Your task to perform on an android device: clear all cookies in the chrome app Image 0: 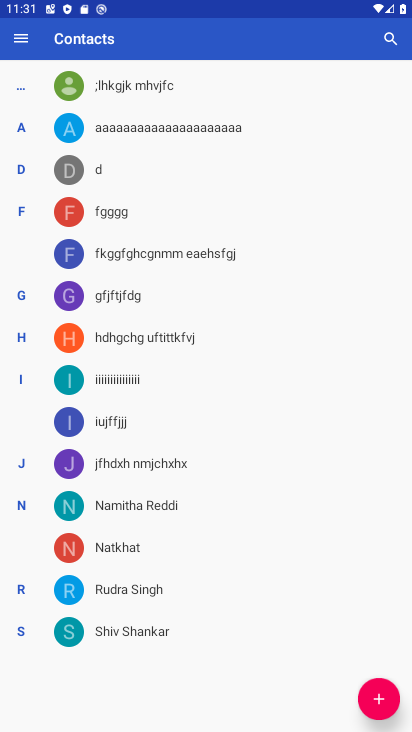
Step 0: press home button
Your task to perform on an android device: clear all cookies in the chrome app Image 1: 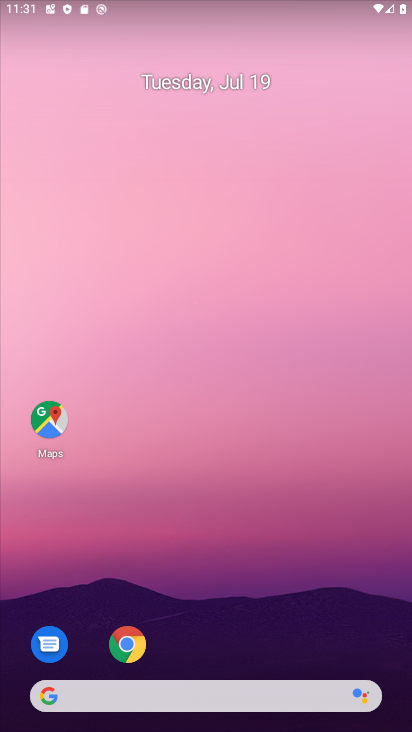
Step 1: drag from (326, 643) to (253, 32)
Your task to perform on an android device: clear all cookies in the chrome app Image 2: 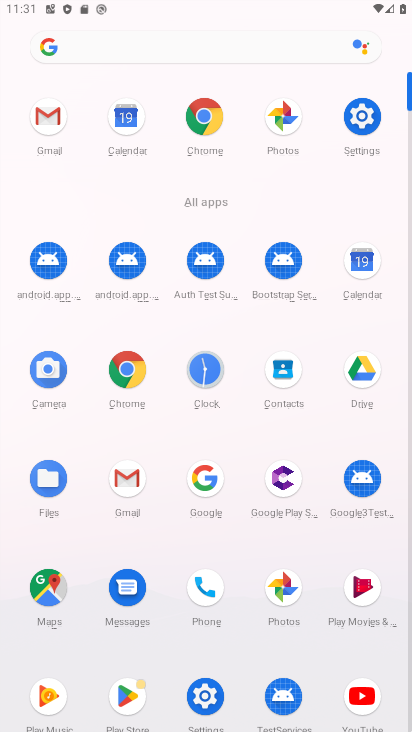
Step 2: click (128, 395)
Your task to perform on an android device: clear all cookies in the chrome app Image 3: 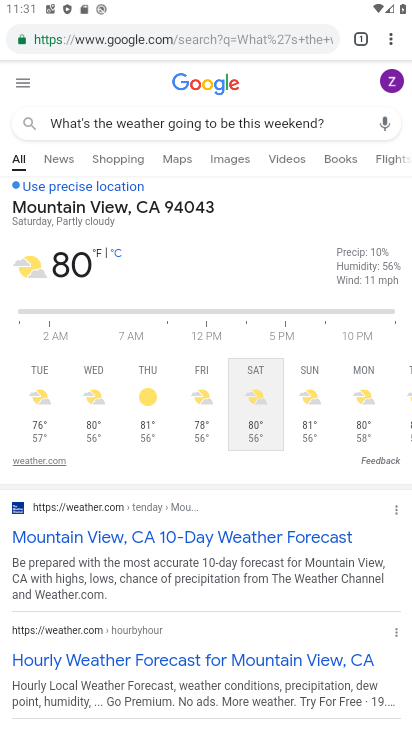
Step 3: drag from (400, 44) to (261, 425)
Your task to perform on an android device: clear all cookies in the chrome app Image 4: 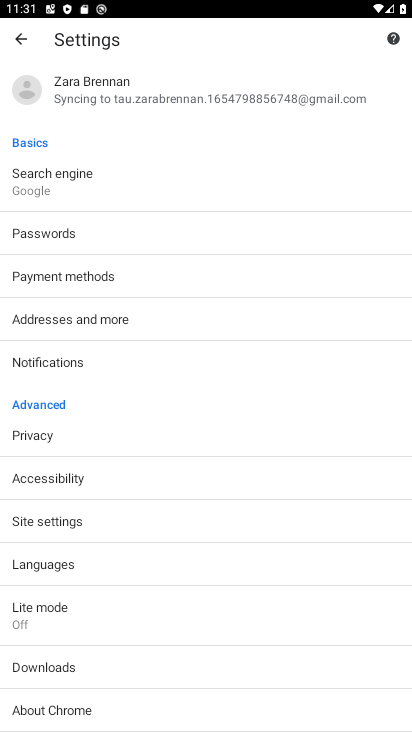
Step 4: click (35, 445)
Your task to perform on an android device: clear all cookies in the chrome app Image 5: 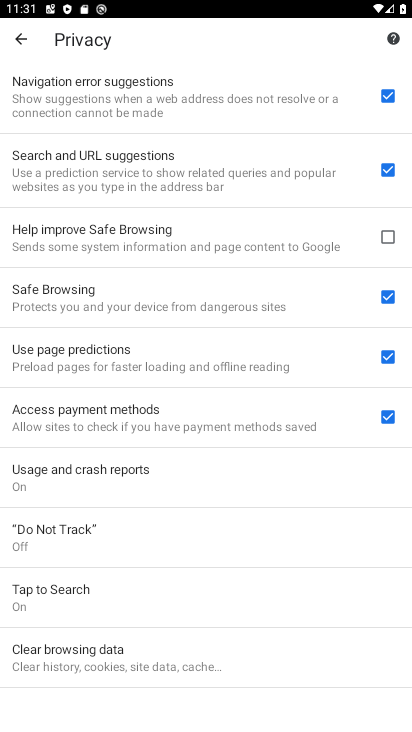
Step 5: click (26, 637)
Your task to perform on an android device: clear all cookies in the chrome app Image 6: 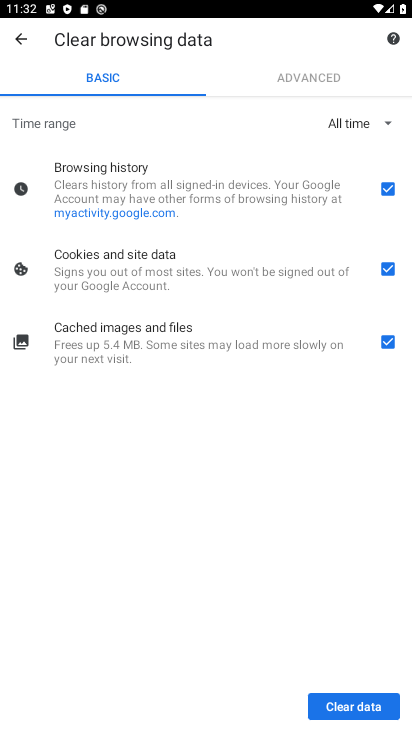
Step 6: click (329, 703)
Your task to perform on an android device: clear all cookies in the chrome app Image 7: 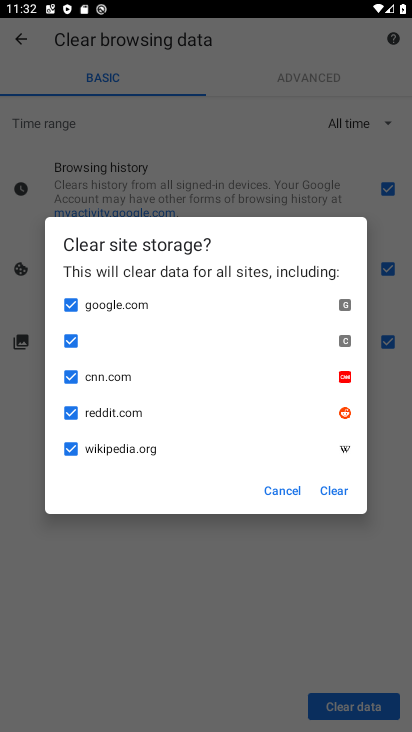
Step 7: click (356, 497)
Your task to perform on an android device: clear all cookies in the chrome app Image 8: 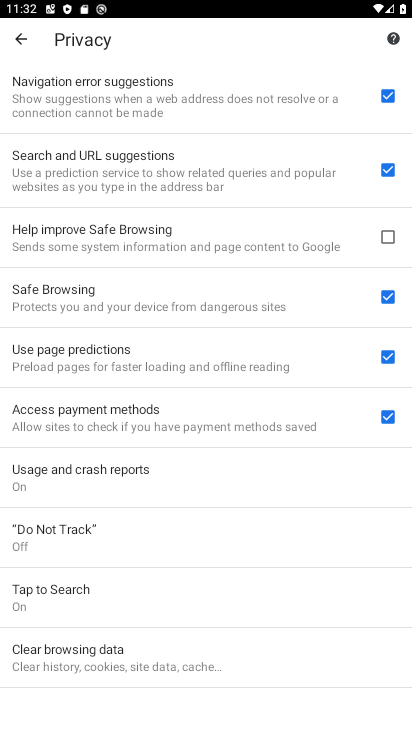
Step 8: task complete